Your task to perform on an android device: Open Chrome and go to the settings page Image 0: 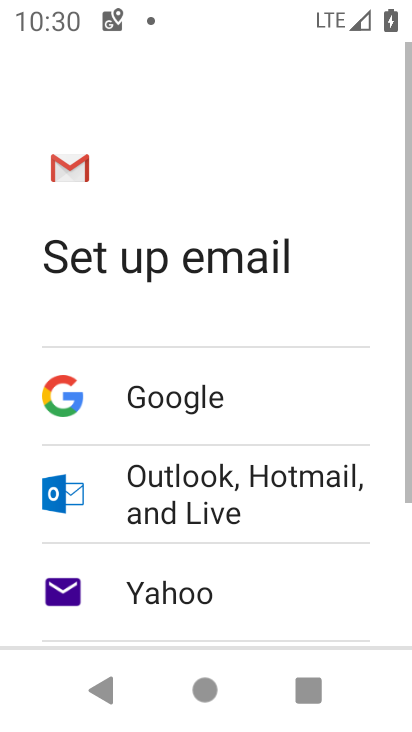
Step 0: press home button
Your task to perform on an android device: Open Chrome and go to the settings page Image 1: 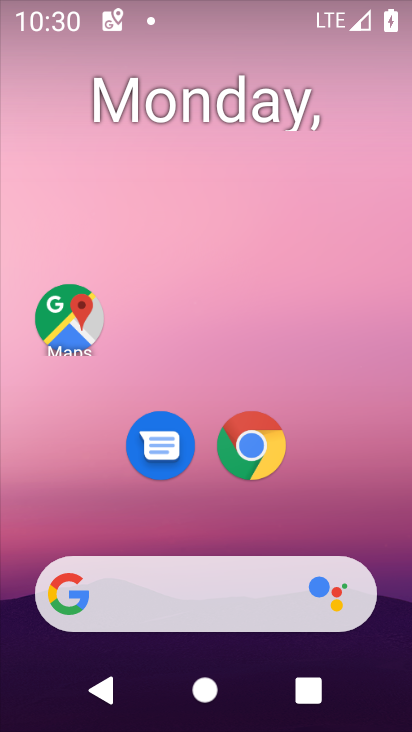
Step 1: click (254, 448)
Your task to perform on an android device: Open Chrome and go to the settings page Image 2: 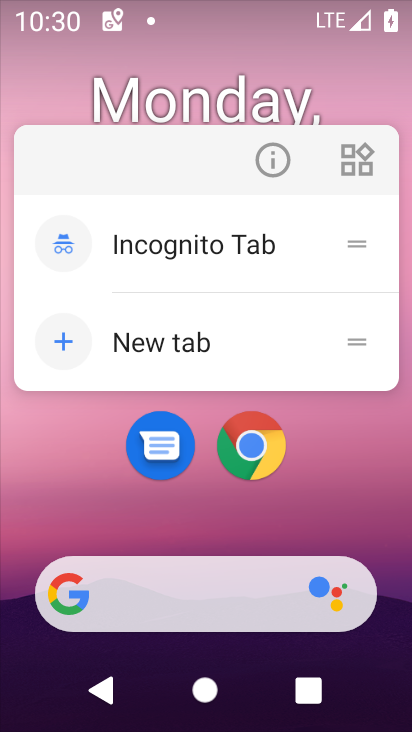
Step 2: click (261, 435)
Your task to perform on an android device: Open Chrome and go to the settings page Image 3: 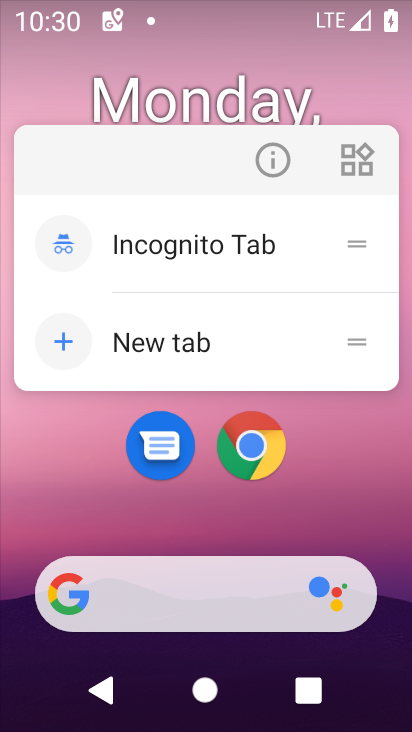
Step 3: click (261, 434)
Your task to perform on an android device: Open Chrome and go to the settings page Image 4: 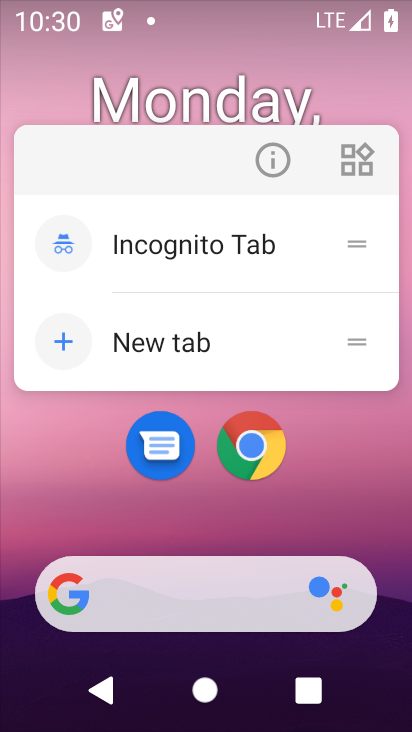
Step 4: click (261, 434)
Your task to perform on an android device: Open Chrome and go to the settings page Image 5: 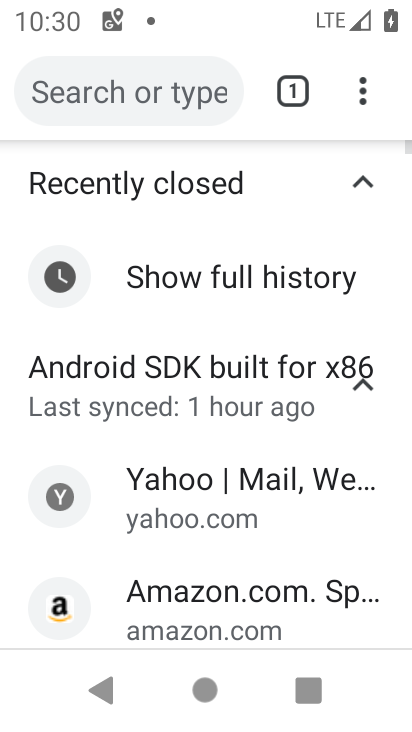
Step 5: click (360, 86)
Your task to perform on an android device: Open Chrome and go to the settings page Image 6: 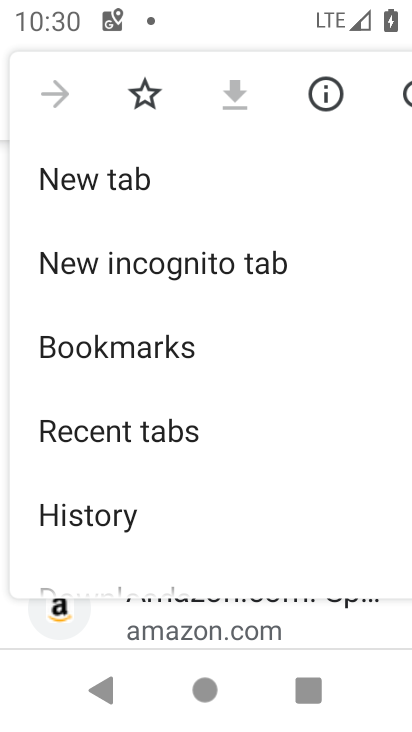
Step 6: drag from (257, 561) to (372, 9)
Your task to perform on an android device: Open Chrome and go to the settings page Image 7: 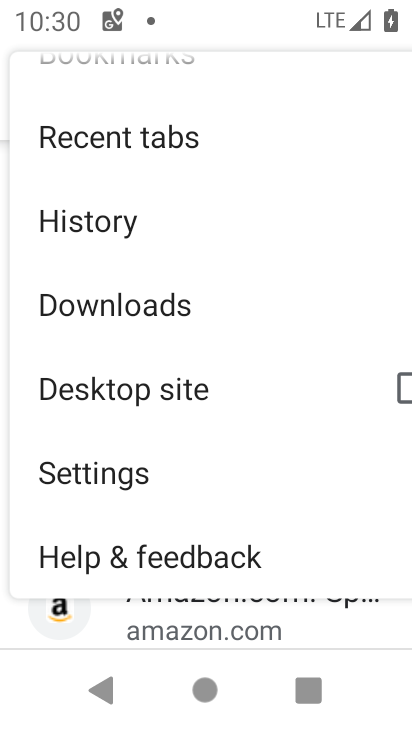
Step 7: click (203, 456)
Your task to perform on an android device: Open Chrome and go to the settings page Image 8: 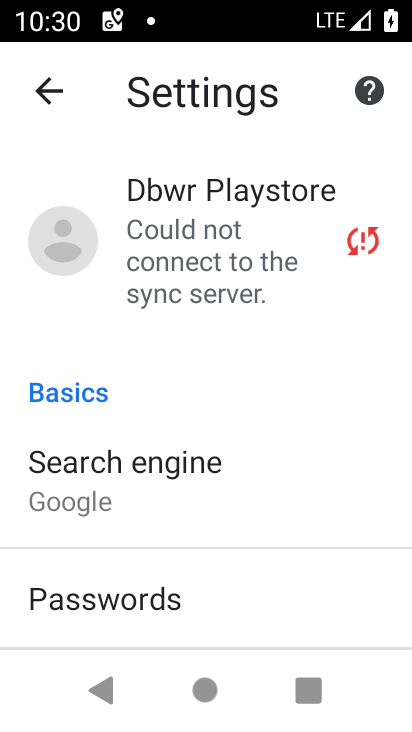
Step 8: task complete